Your task to perform on an android device: turn on the 12-hour format for clock Image 0: 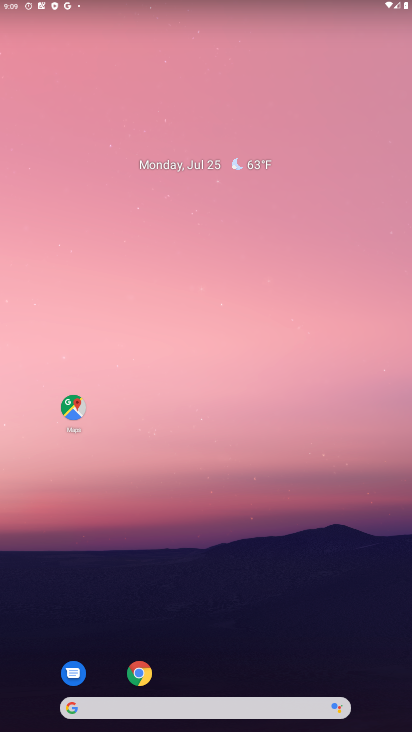
Step 0: drag from (191, 673) to (260, 20)
Your task to perform on an android device: turn on the 12-hour format for clock Image 1: 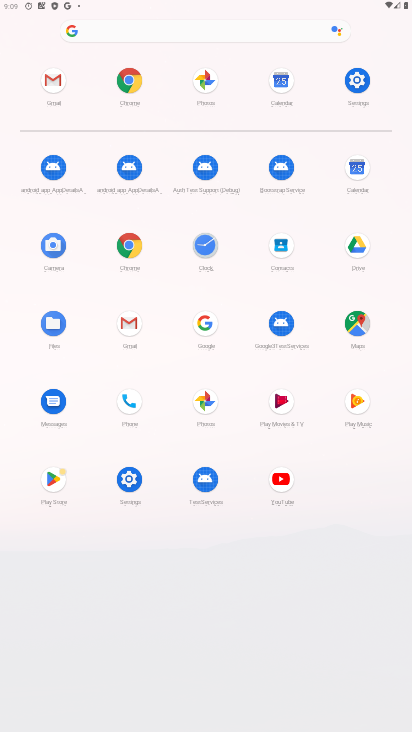
Step 1: drag from (202, 664) to (224, 229)
Your task to perform on an android device: turn on the 12-hour format for clock Image 2: 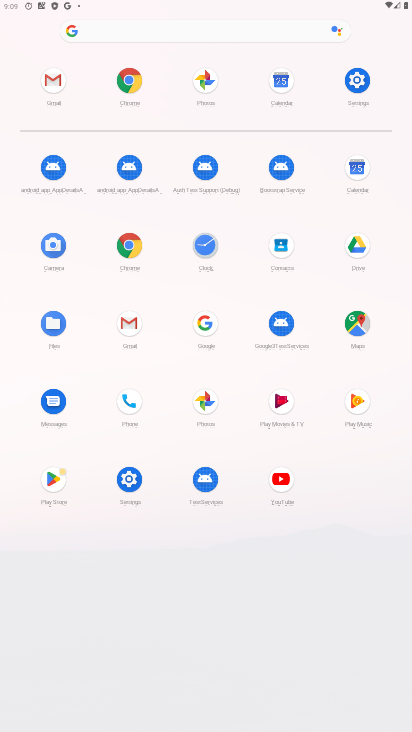
Step 2: click (202, 251)
Your task to perform on an android device: turn on the 12-hour format for clock Image 3: 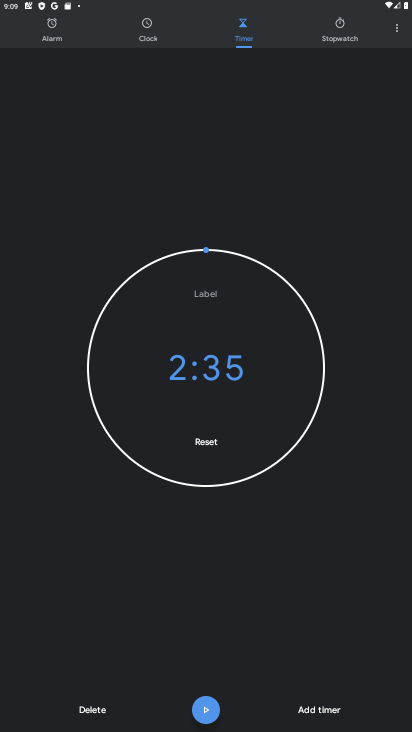
Step 3: drag from (401, 25) to (356, 53)
Your task to perform on an android device: turn on the 12-hour format for clock Image 4: 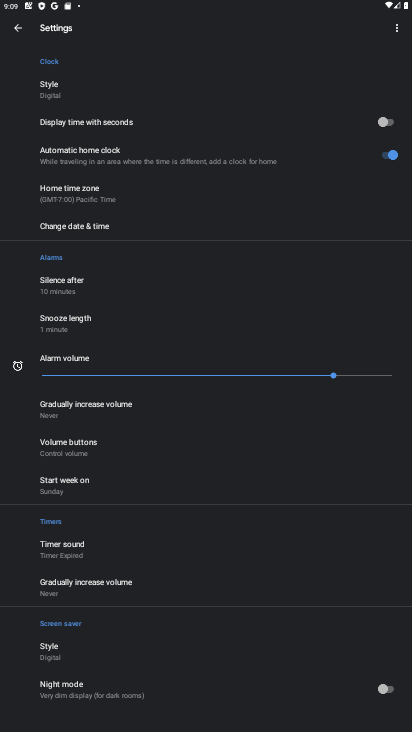
Step 4: drag from (168, 626) to (169, 254)
Your task to perform on an android device: turn on the 12-hour format for clock Image 5: 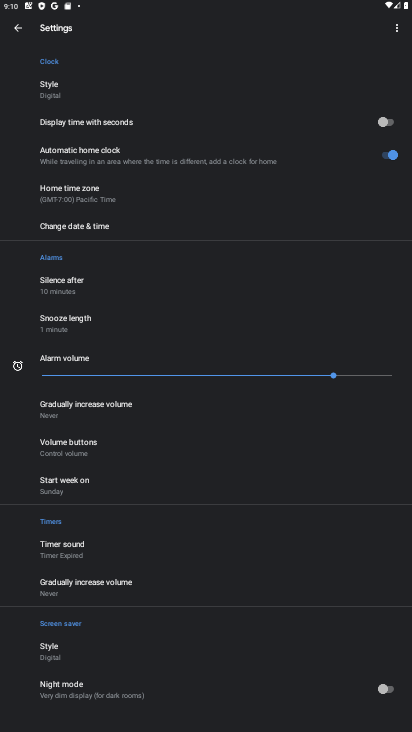
Step 5: click (93, 222)
Your task to perform on an android device: turn on the 12-hour format for clock Image 6: 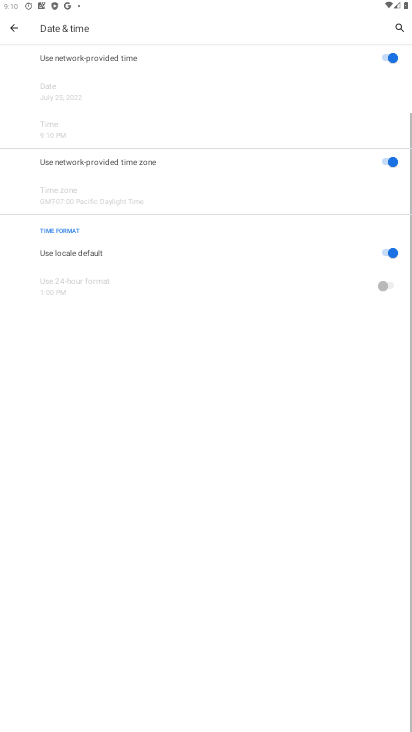
Step 6: task complete